Your task to perform on an android device: snooze an email in the gmail app Image 0: 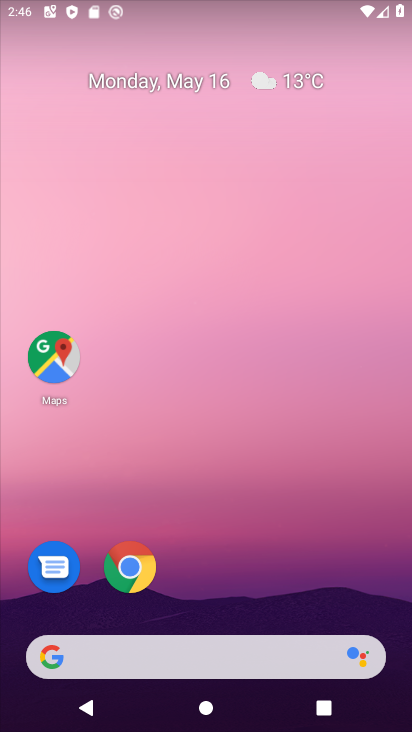
Step 0: drag from (286, 534) to (341, 57)
Your task to perform on an android device: snooze an email in the gmail app Image 1: 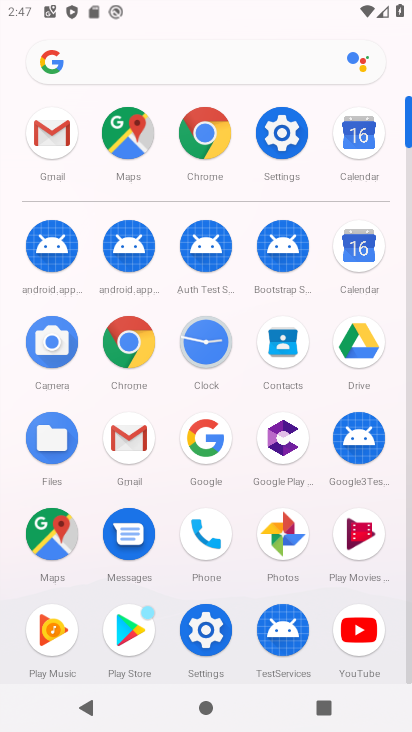
Step 1: click (49, 128)
Your task to perform on an android device: snooze an email in the gmail app Image 2: 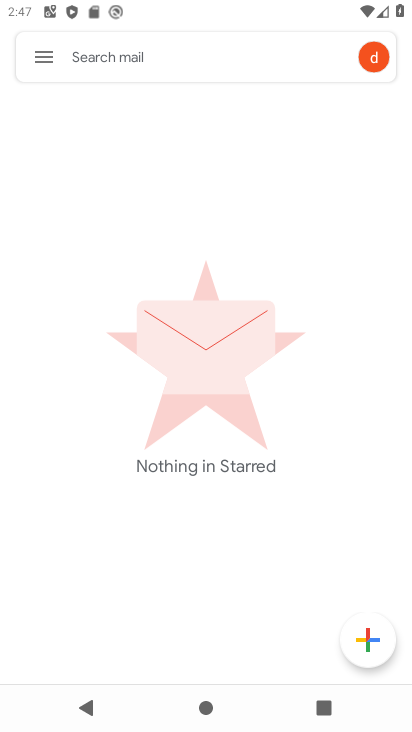
Step 2: click (43, 56)
Your task to perform on an android device: snooze an email in the gmail app Image 3: 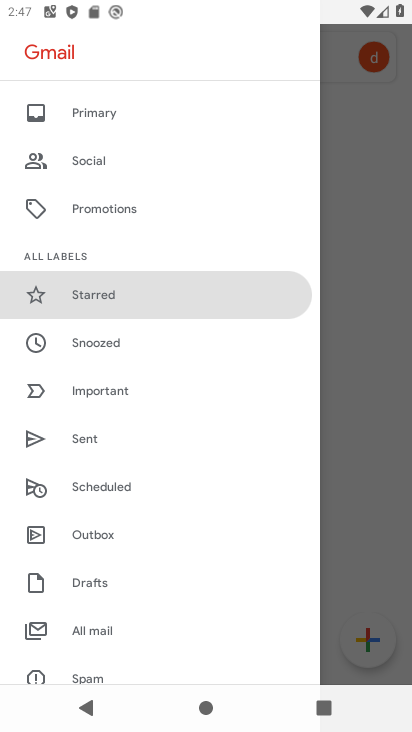
Step 3: click (91, 619)
Your task to perform on an android device: snooze an email in the gmail app Image 4: 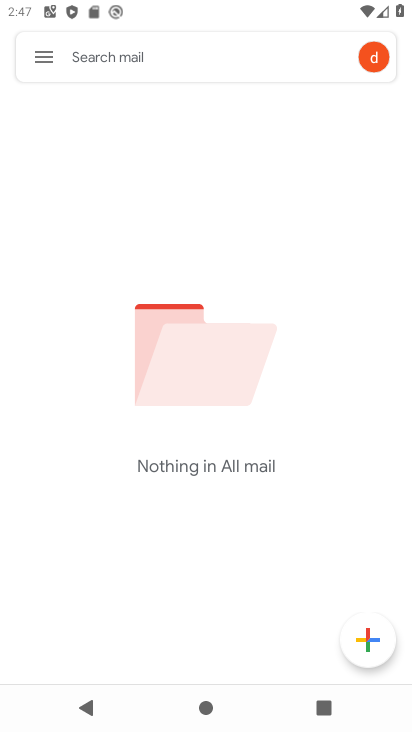
Step 4: task complete